Your task to perform on an android device: change your default location settings in chrome Image 0: 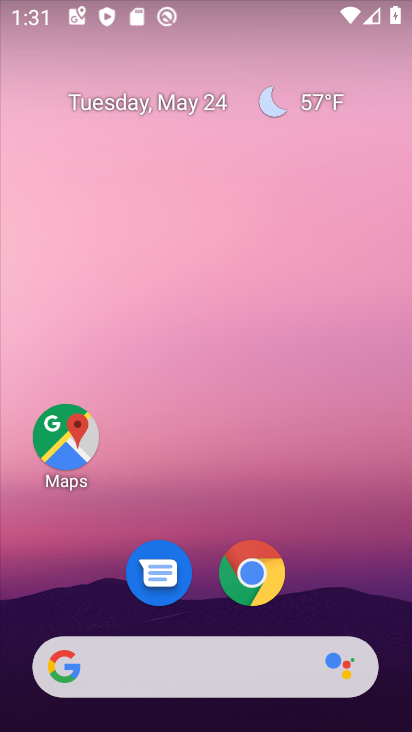
Step 0: drag from (361, 600) to (359, 175)
Your task to perform on an android device: change your default location settings in chrome Image 1: 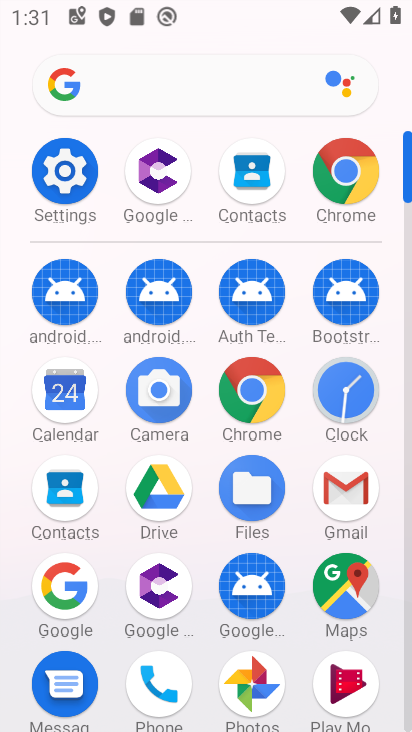
Step 1: click (268, 388)
Your task to perform on an android device: change your default location settings in chrome Image 2: 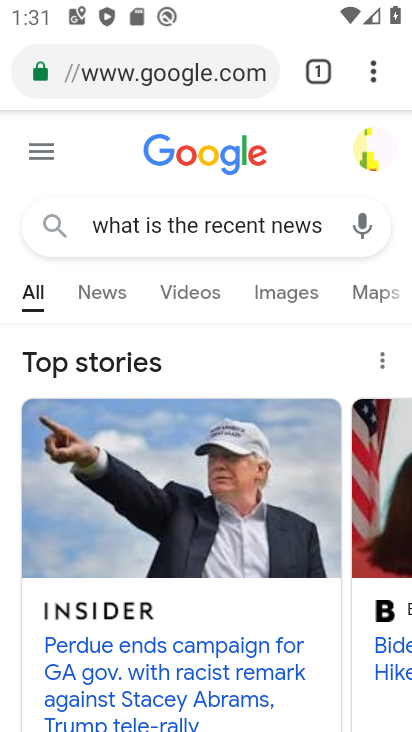
Step 2: drag from (369, 80) to (214, 569)
Your task to perform on an android device: change your default location settings in chrome Image 3: 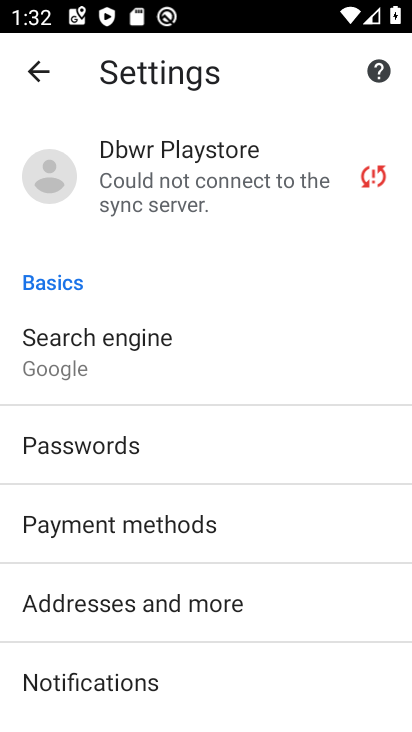
Step 3: drag from (262, 639) to (257, 271)
Your task to perform on an android device: change your default location settings in chrome Image 4: 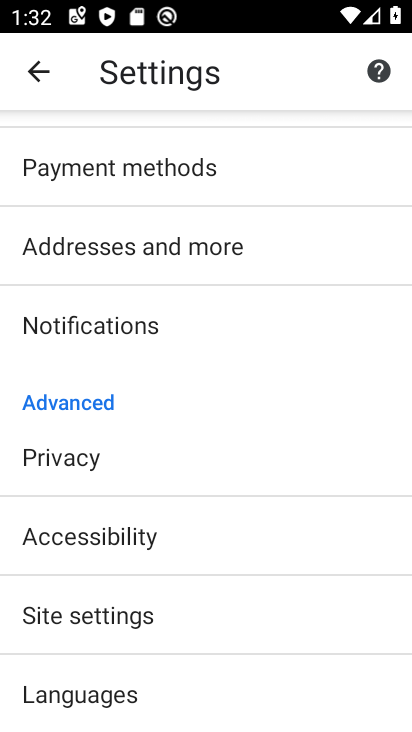
Step 4: drag from (238, 598) to (237, 239)
Your task to perform on an android device: change your default location settings in chrome Image 5: 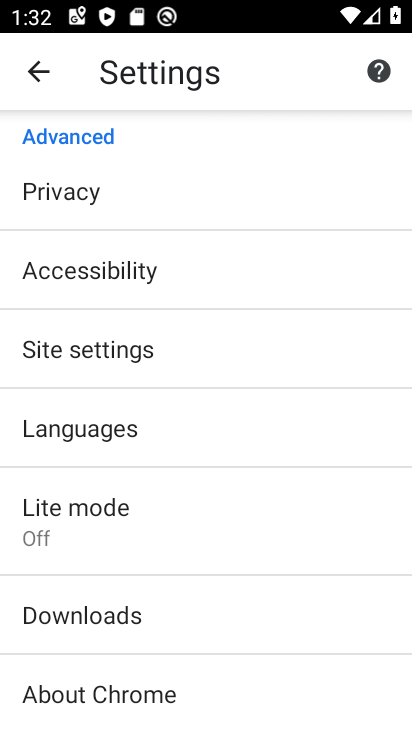
Step 5: click (152, 362)
Your task to perform on an android device: change your default location settings in chrome Image 6: 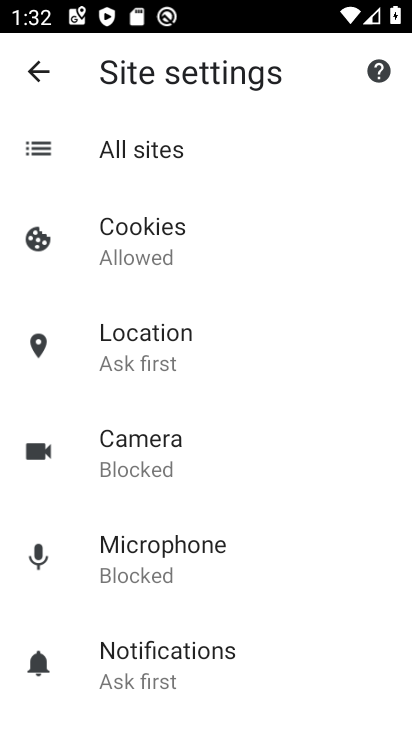
Step 6: drag from (266, 614) to (247, 287)
Your task to perform on an android device: change your default location settings in chrome Image 7: 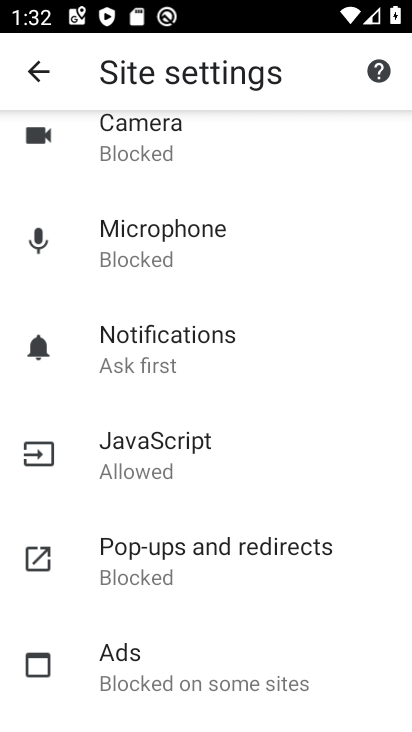
Step 7: drag from (233, 302) to (199, 541)
Your task to perform on an android device: change your default location settings in chrome Image 8: 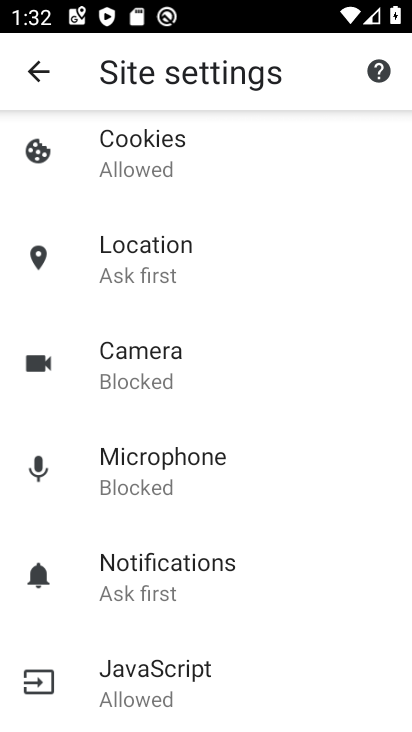
Step 8: click (165, 261)
Your task to perform on an android device: change your default location settings in chrome Image 9: 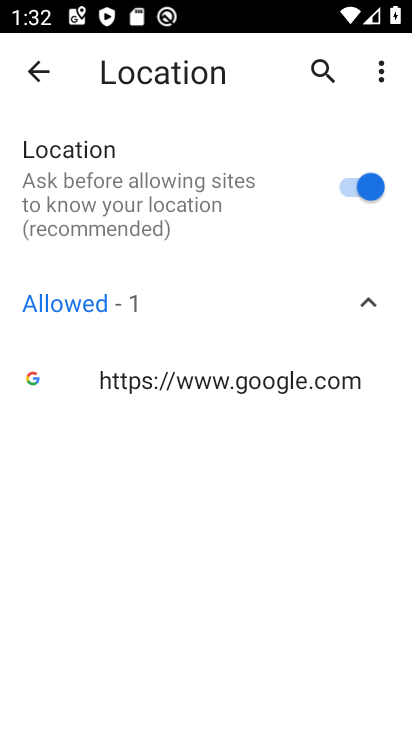
Step 9: task complete